Your task to perform on an android device: Open Wikipedia Image 0: 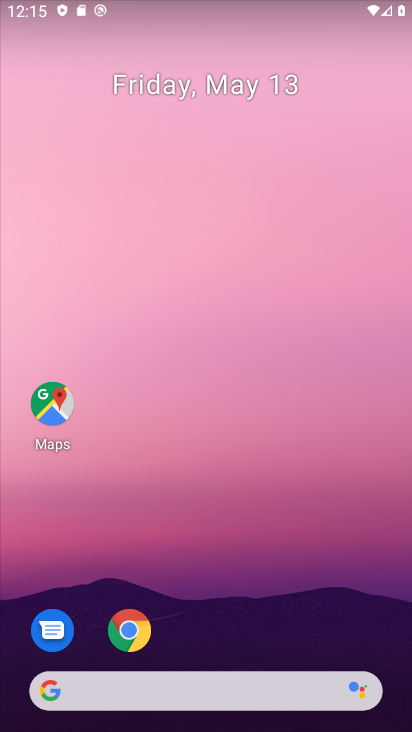
Step 0: drag from (198, 683) to (330, 133)
Your task to perform on an android device: Open Wikipedia Image 1: 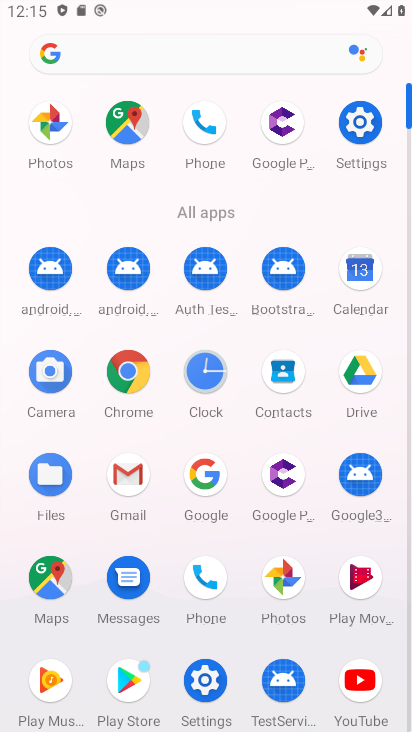
Step 1: click (134, 387)
Your task to perform on an android device: Open Wikipedia Image 2: 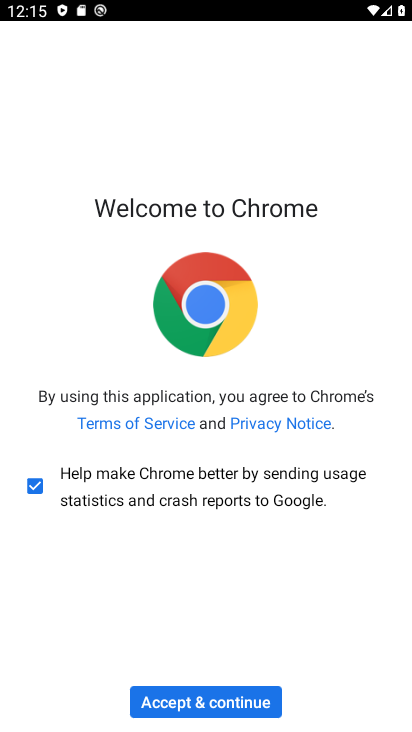
Step 2: click (199, 689)
Your task to perform on an android device: Open Wikipedia Image 3: 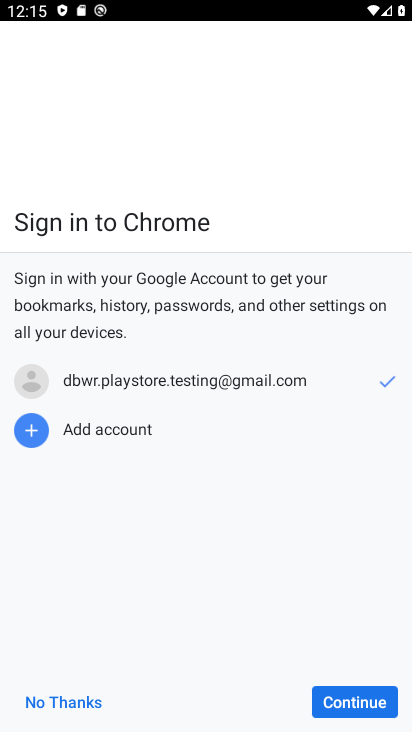
Step 3: click (345, 694)
Your task to perform on an android device: Open Wikipedia Image 4: 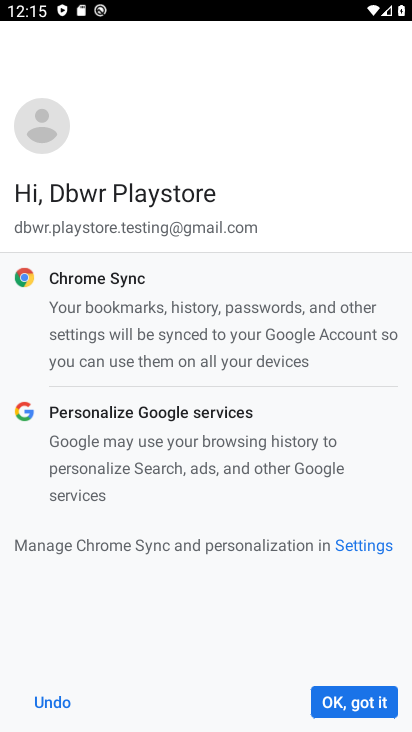
Step 4: click (343, 704)
Your task to perform on an android device: Open Wikipedia Image 5: 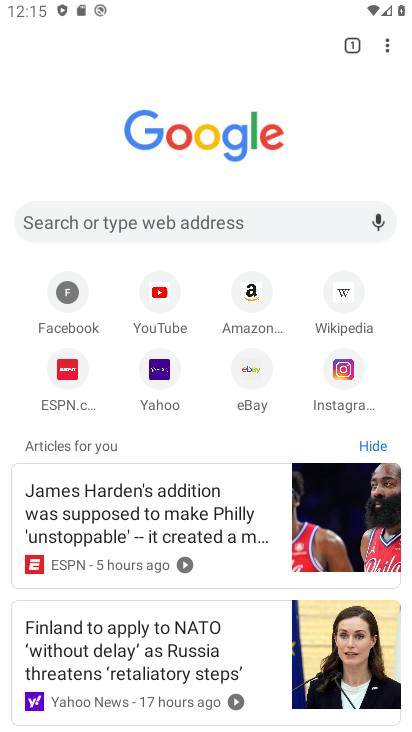
Step 5: click (337, 306)
Your task to perform on an android device: Open Wikipedia Image 6: 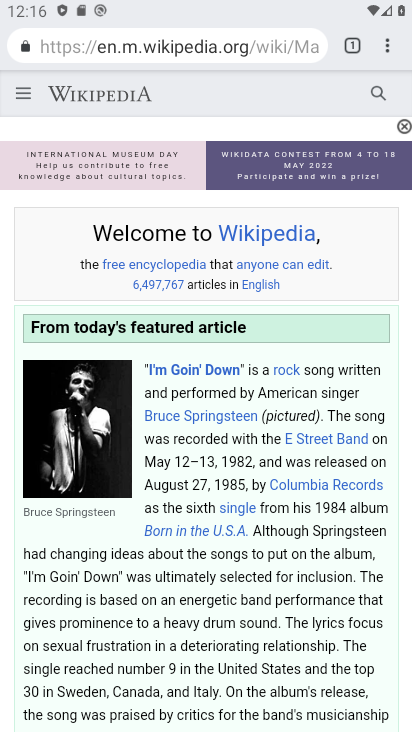
Step 6: task complete